Your task to perform on an android device: move an email to a new category in the gmail app Image 0: 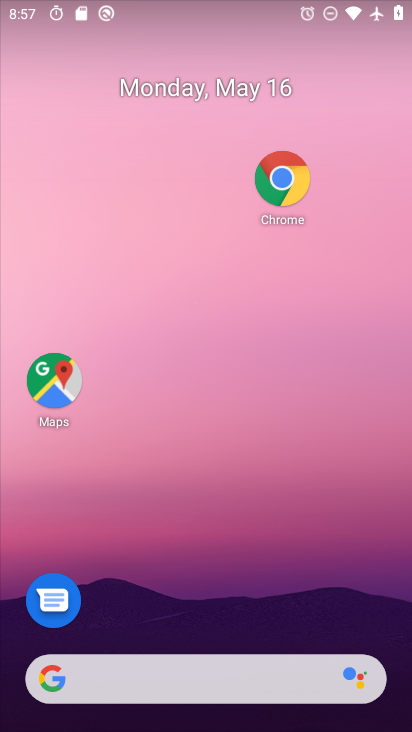
Step 0: press home button
Your task to perform on an android device: move an email to a new category in the gmail app Image 1: 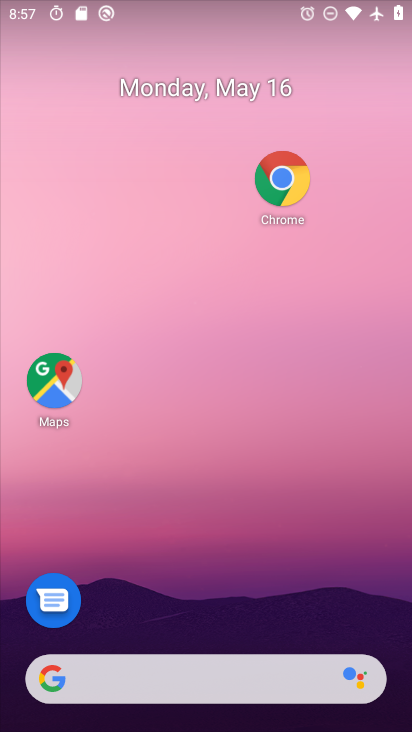
Step 1: drag from (143, 676) to (193, 90)
Your task to perform on an android device: move an email to a new category in the gmail app Image 2: 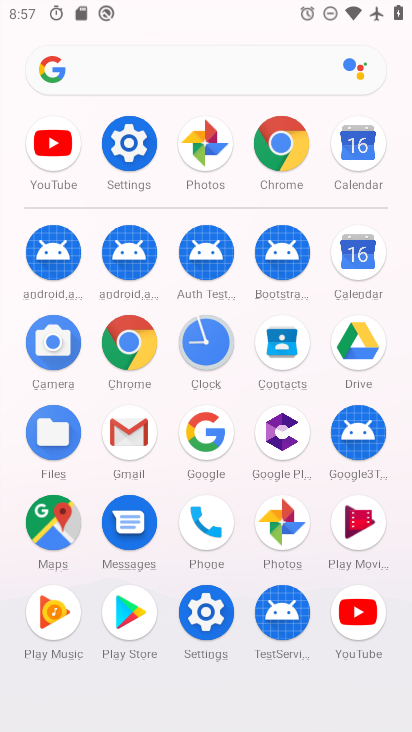
Step 2: click (126, 442)
Your task to perform on an android device: move an email to a new category in the gmail app Image 3: 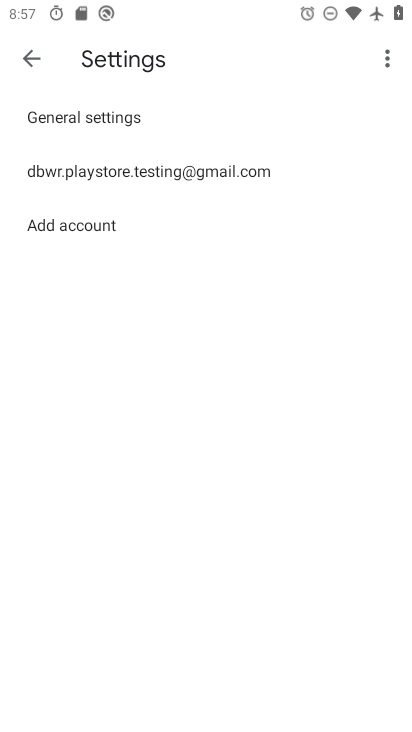
Step 3: click (41, 56)
Your task to perform on an android device: move an email to a new category in the gmail app Image 4: 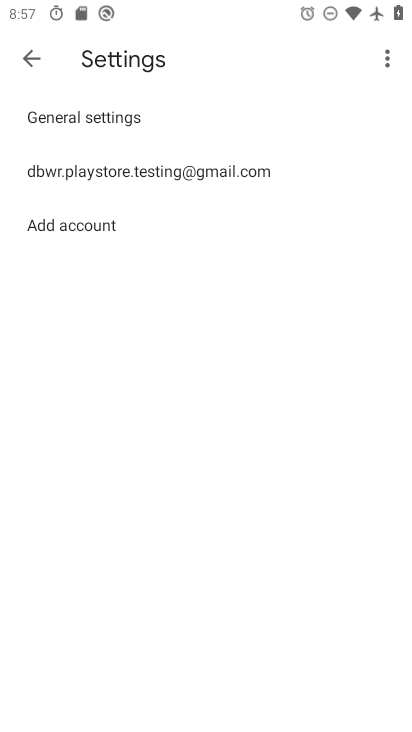
Step 4: click (25, 62)
Your task to perform on an android device: move an email to a new category in the gmail app Image 5: 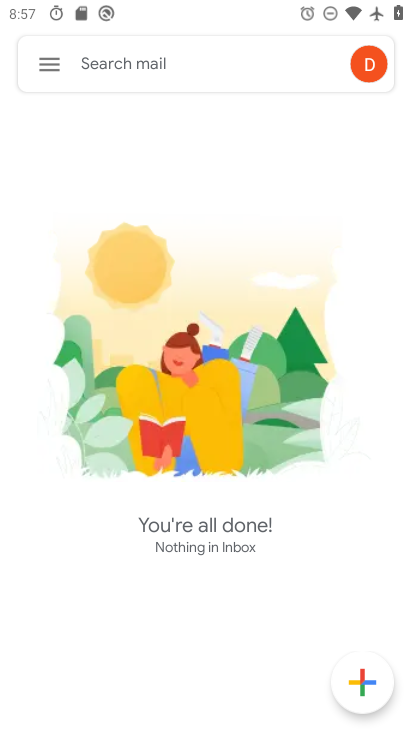
Step 5: task complete